Your task to perform on an android device: What's on my calendar today? Image 0: 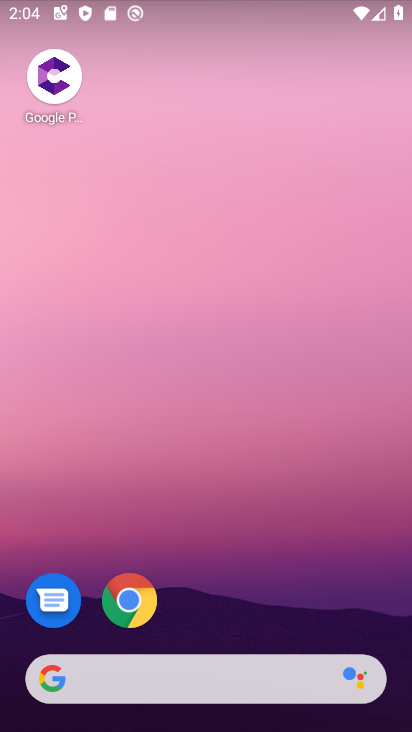
Step 0: drag from (174, 460) to (168, 268)
Your task to perform on an android device: What's on my calendar today? Image 1: 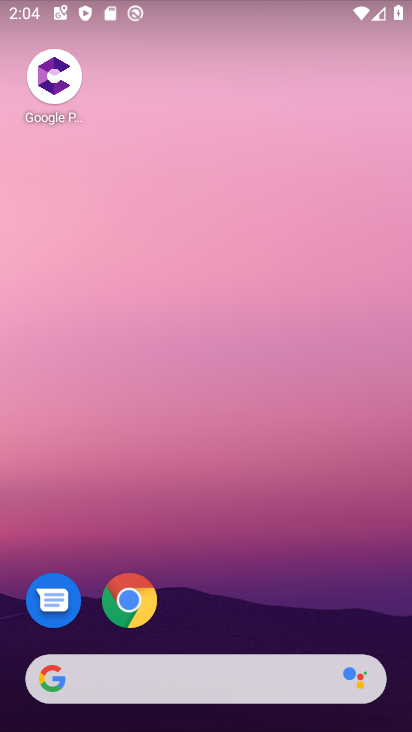
Step 1: drag from (295, 654) to (301, 181)
Your task to perform on an android device: What's on my calendar today? Image 2: 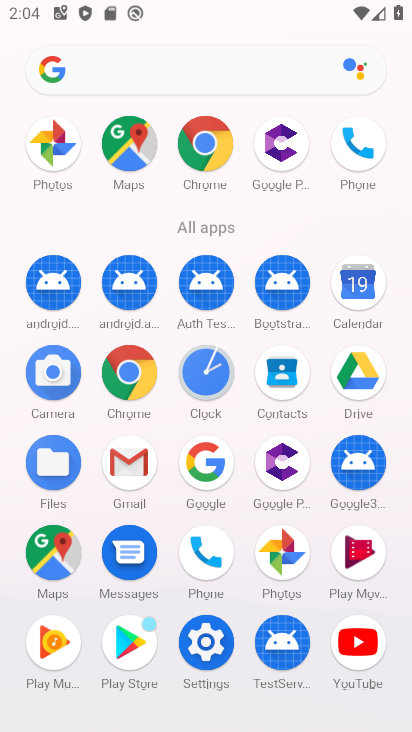
Step 2: click (365, 288)
Your task to perform on an android device: What's on my calendar today? Image 3: 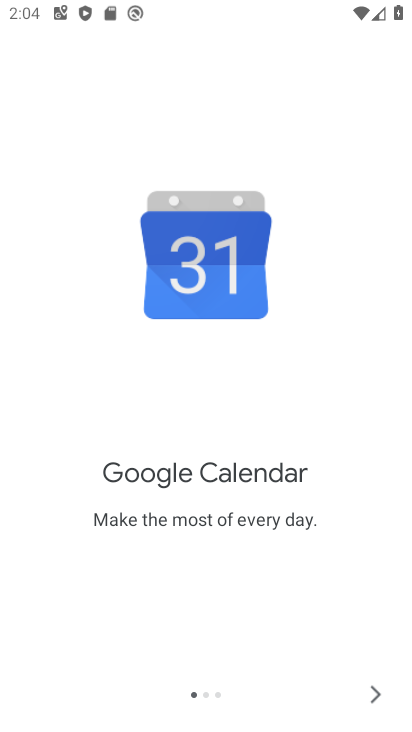
Step 3: click (372, 690)
Your task to perform on an android device: What's on my calendar today? Image 4: 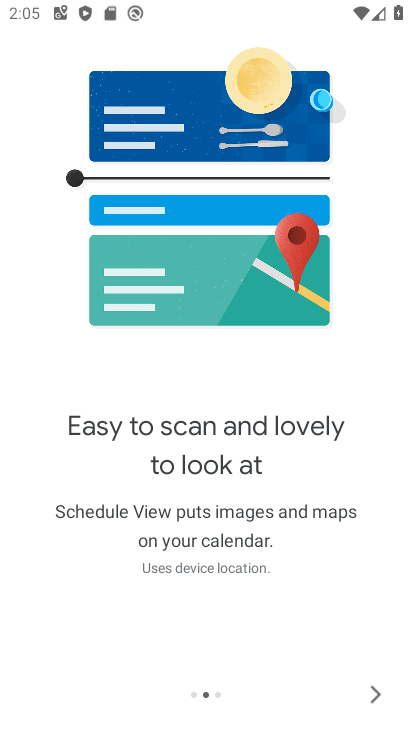
Step 4: click (372, 690)
Your task to perform on an android device: What's on my calendar today? Image 5: 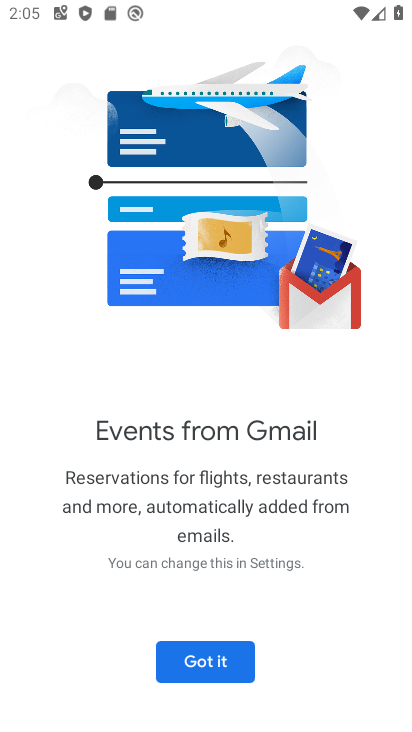
Step 5: click (214, 666)
Your task to perform on an android device: What's on my calendar today? Image 6: 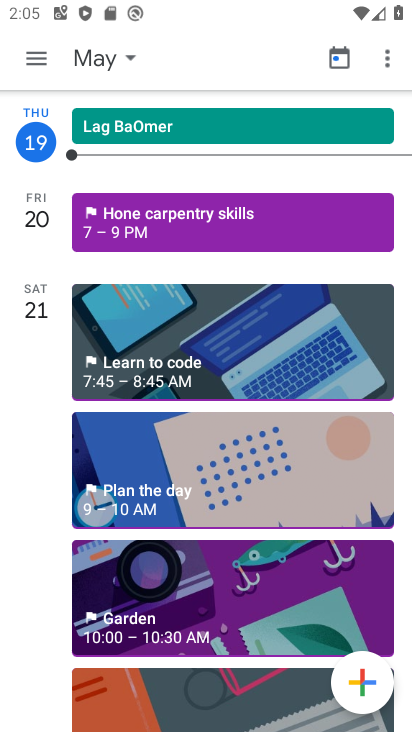
Step 6: drag from (238, 588) to (247, 256)
Your task to perform on an android device: What's on my calendar today? Image 7: 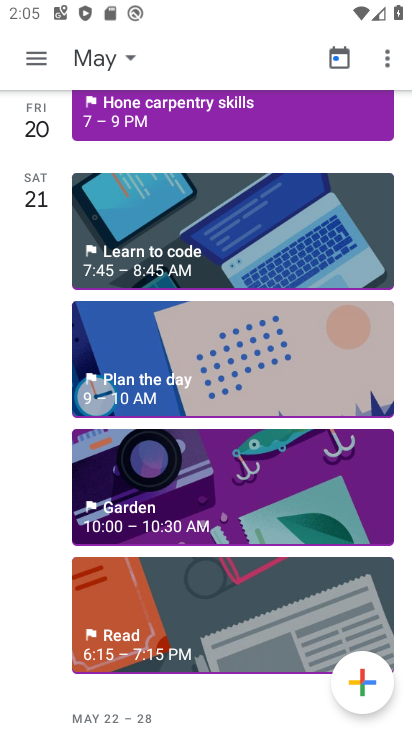
Step 7: click (222, 508)
Your task to perform on an android device: What's on my calendar today? Image 8: 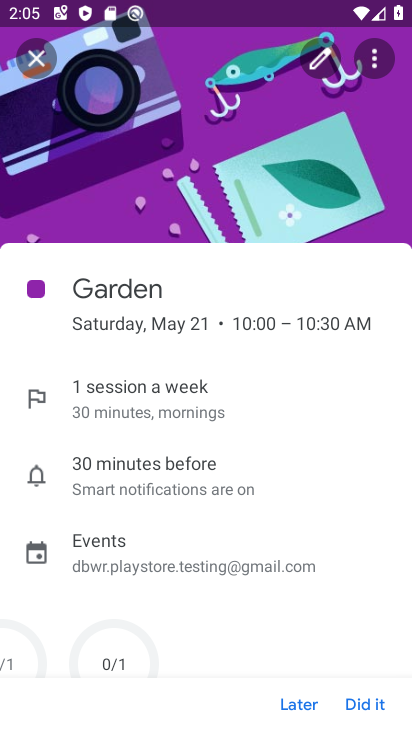
Step 8: click (35, 56)
Your task to perform on an android device: What's on my calendar today? Image 9: 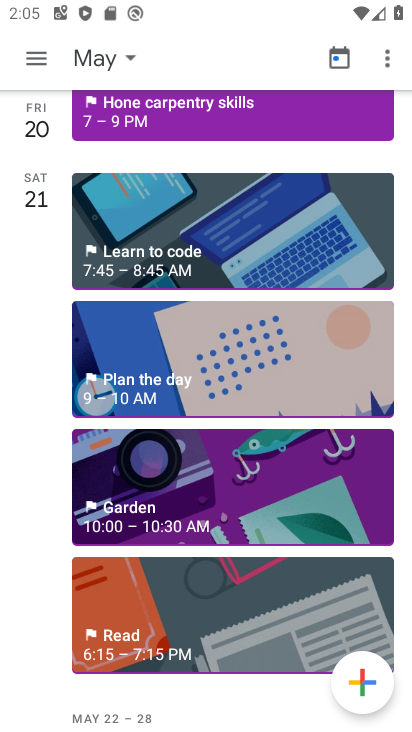
Step 9: drag from (194, 106) to (235, 413)
Your task to perform on an android device: What's on my calendar today? Image 10: 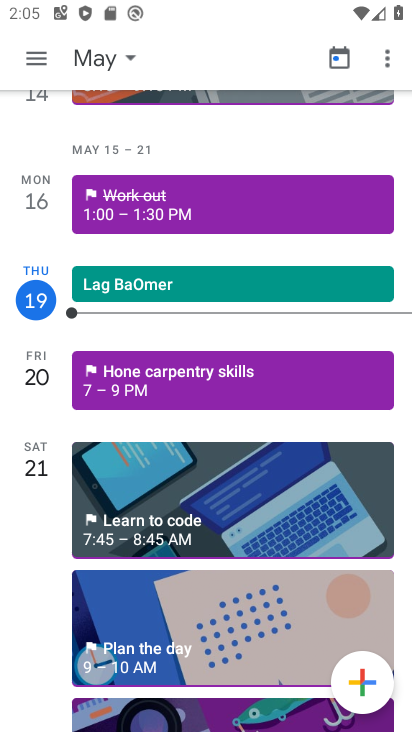
Step 10: click (112, 281)
Your task to perform on an android device: What's on my calendar today? Image 11: 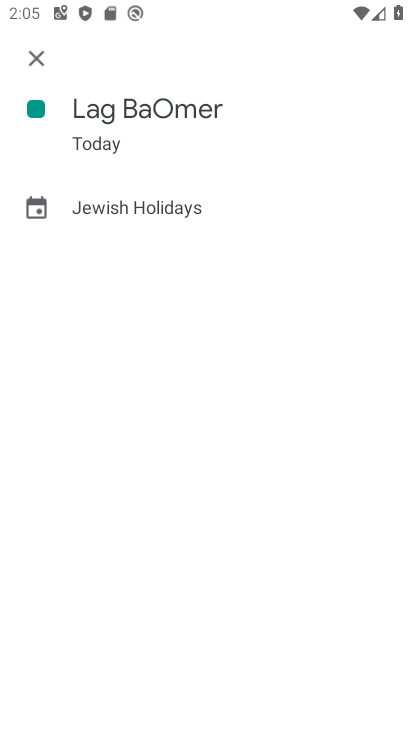
Step 11: task complete